Your task to perform on an android device: Open Amazon Image 0: 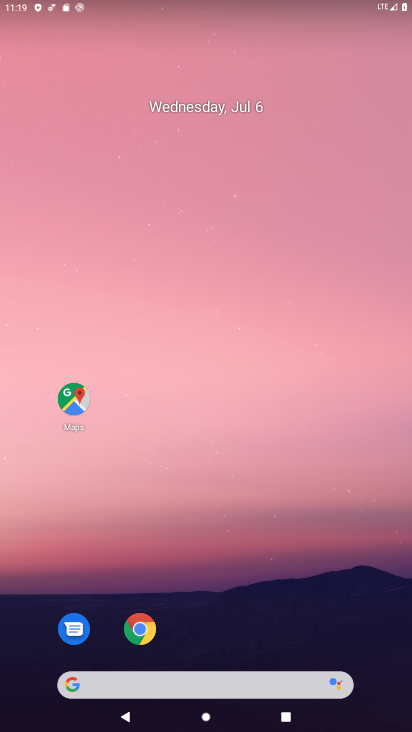
Step 0: click (149, 633)
Your task to perform on an android device: Open Amazon Image 1: 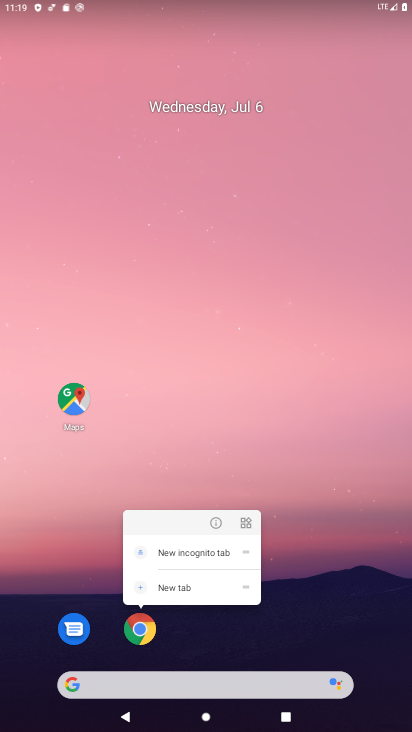
Step 1: click (151, 624)
Your task to perform on an android device: Open Amazon Image 2: 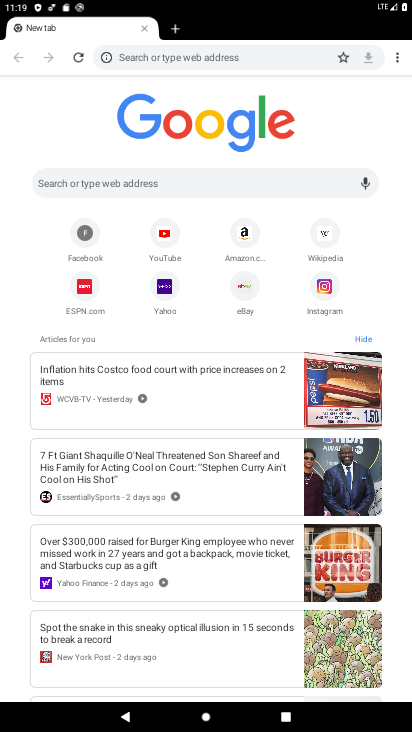
Step 2: click (248, 228)
Your task to perform on an android device: Open Amazon Image 3: 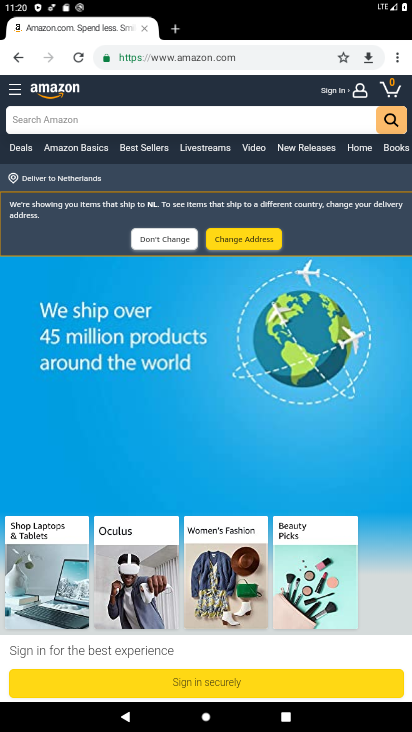
Step 3: task complete